Your task to perform on an android device: Open notification settings Image 0: 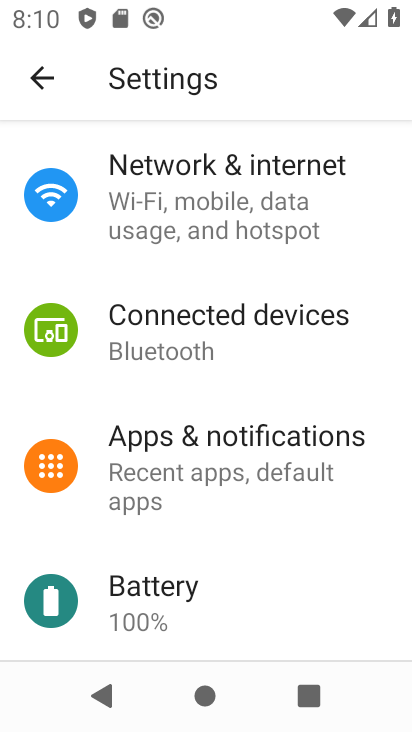
Step 0: press home button
Your task to perform on an android device: Open notification settings Image 1: 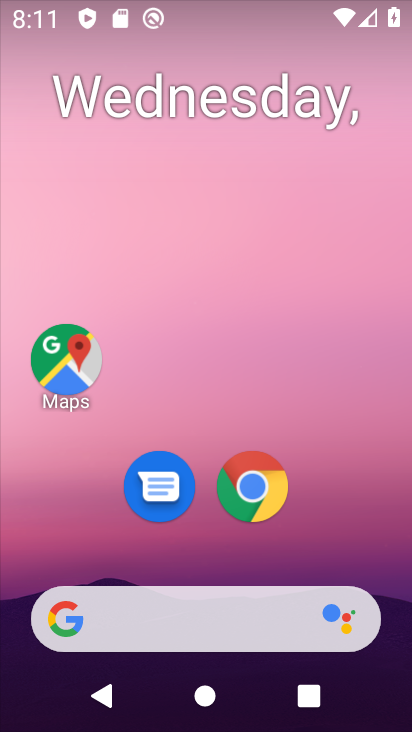
Step 1: drag from (397, 616) to (331, 118)
Your task to perform on an android device: Open notification settings Image 2: 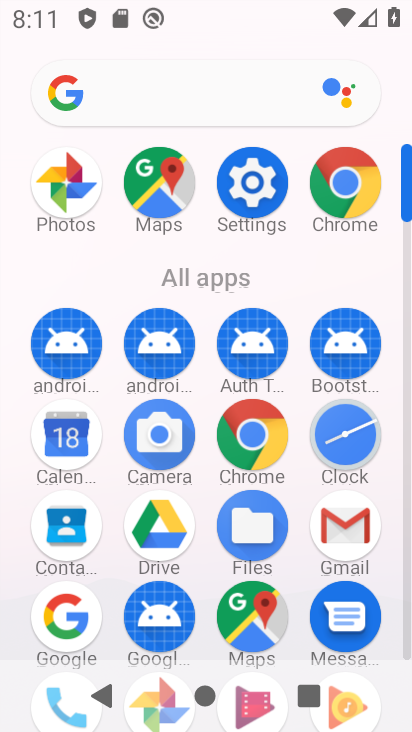
Step 2: click (408, 648)
Your task to perform on an android device: Open notification settings Image 3: 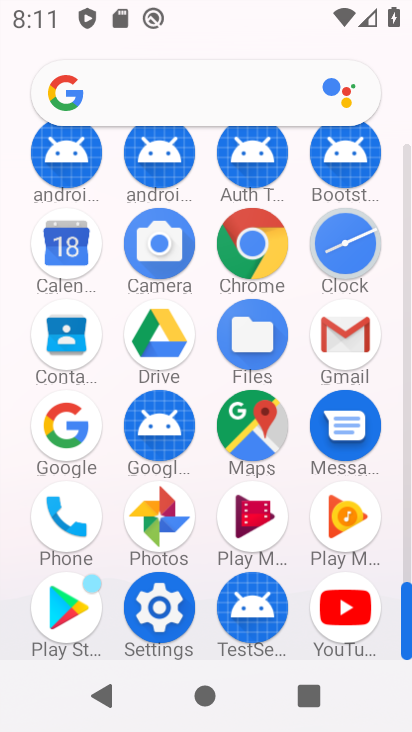
Step 3: click (157, 610)
Your task to perform on an android device: Open notification settings Image 4: 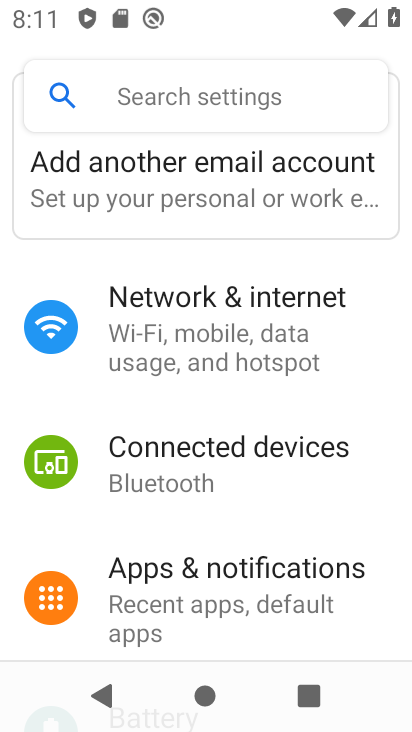
Step 4: click (195, 600)
Your task to perform on an android device: Open notification settings Image 5: 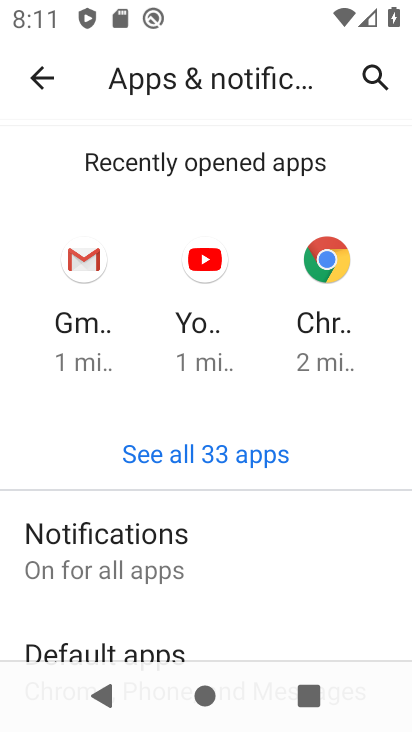
Step 5: click (90, 551)
Your task to perform on an android device: Open notification settings Image 6: 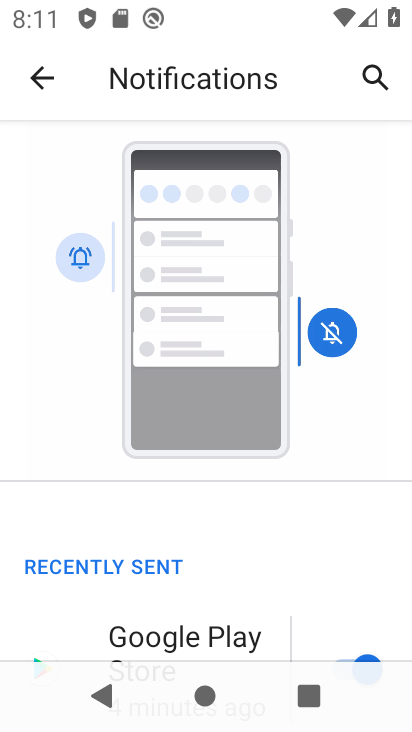
Step 6: task complete